Your task to perform on an android device: Open Google Chrome and open the bookmarks view Image 0: 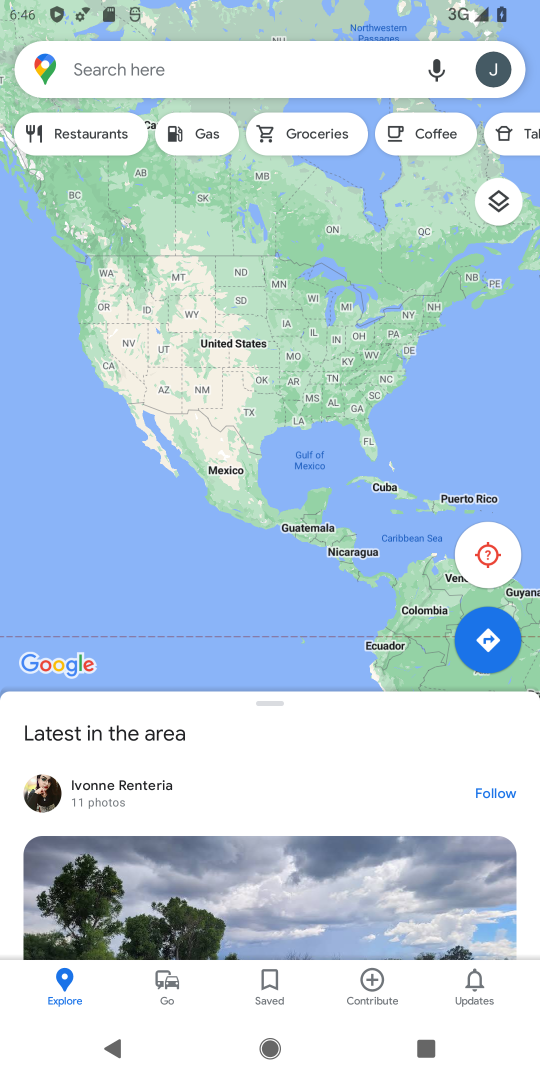
Step 0: press home button
Your task to perform on an android device: Open Google Chrome and open the bookmarks view Image 1: 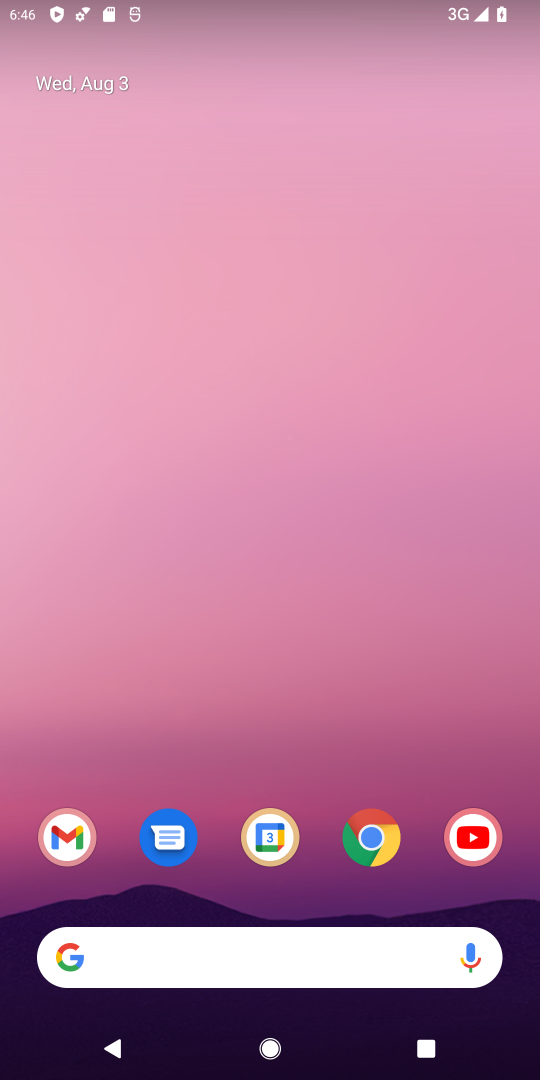
Step 1: click (377, 843)
Your task to perform on an android device: Open Google Chrome and open the bookmarks view Image 2: 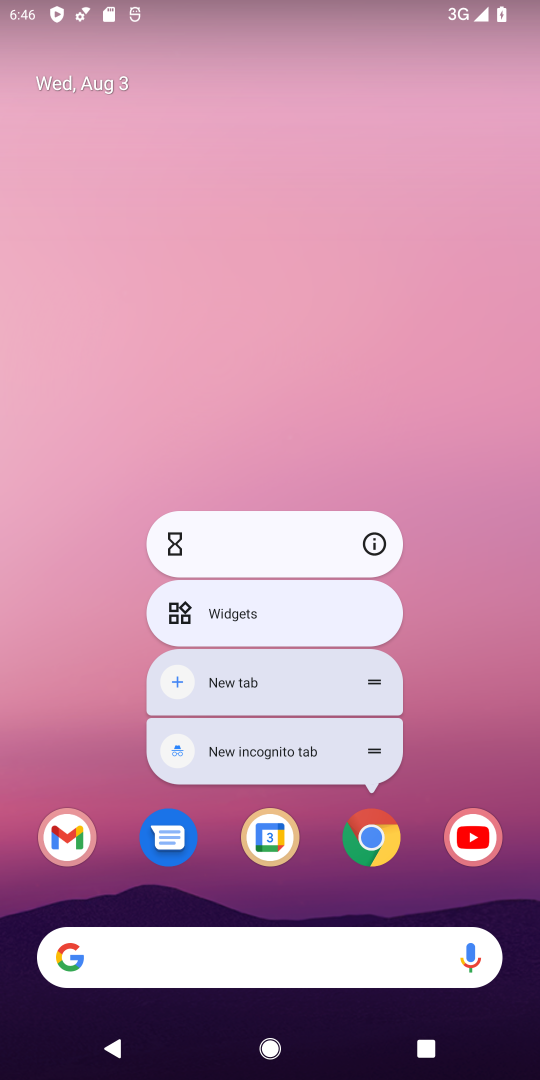
Step 2: click (370, 842)
Your task to perform on an android device: Open Google Chrome and open the bookmarks view Image 3: 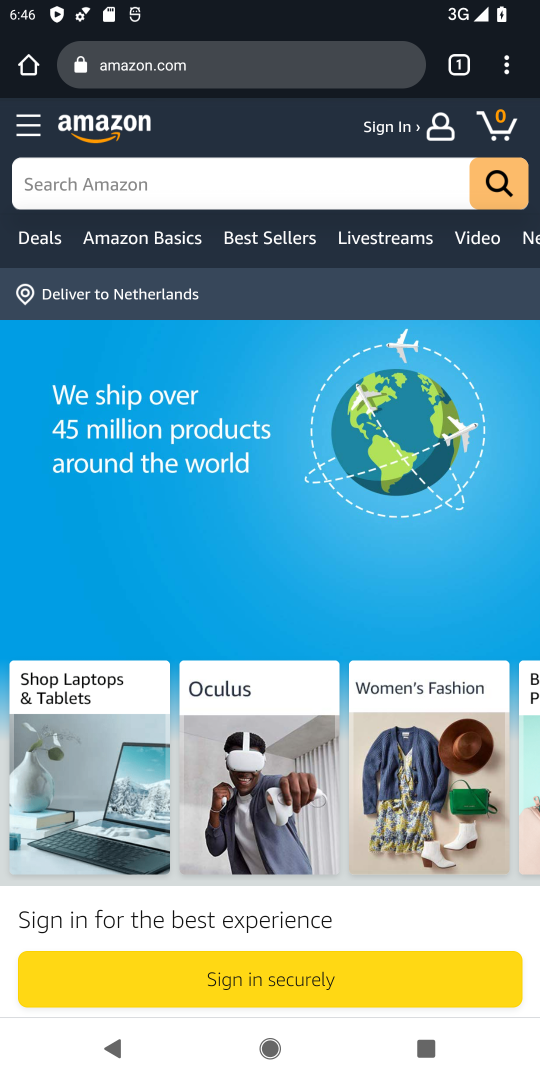
Step 3: task complete